Your task to perform on an android device: turn on sleep mode Image 0: 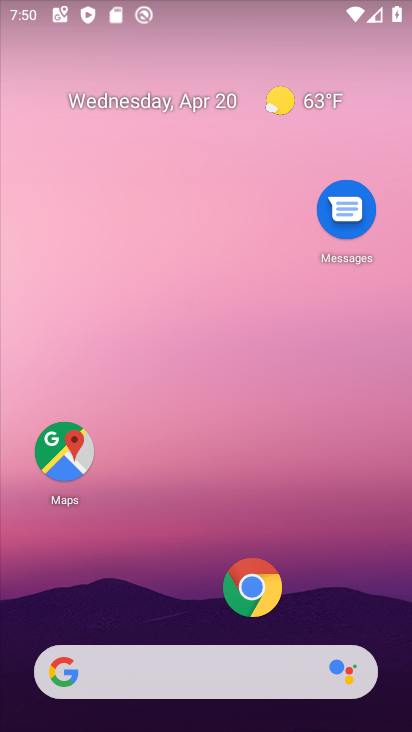
Step 0: press home button
Your task to perform on an android device: turn on sleep mode Image 1: 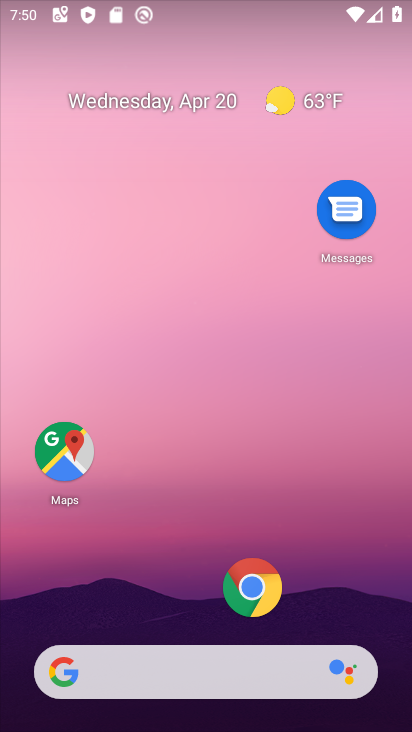
Step 1: drag from (137, 636) to (290, 70)
Your task to perform on an android device: turn on sleep mode Image 2: 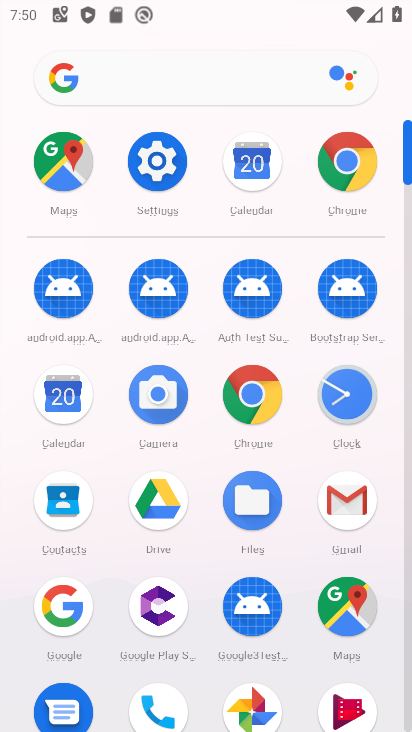
Step 2: click (152, 171)
Your task to perform on an android device: turn on sleep mode Image 3: 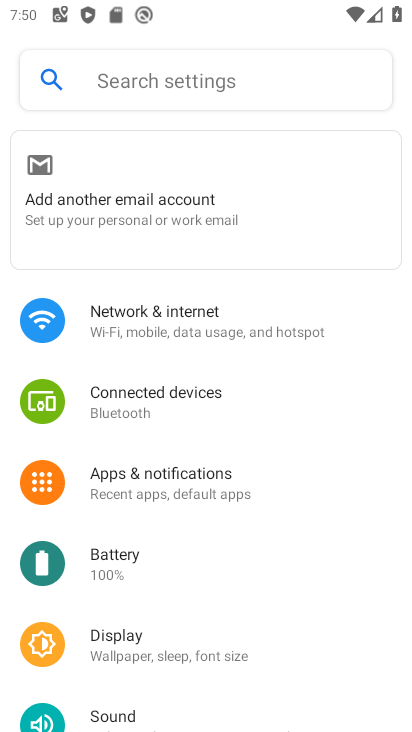
Step 3: drag from (216, 581) to (374, 158)
Your task to perform on an android device: turn on sleep mode Image 4: 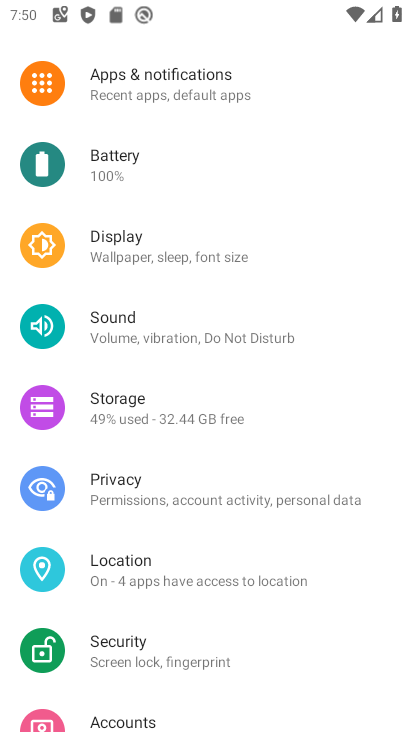
Step 4: click (120, 249)
Your task to perform on an android device: turn on sleep mode Image 5: 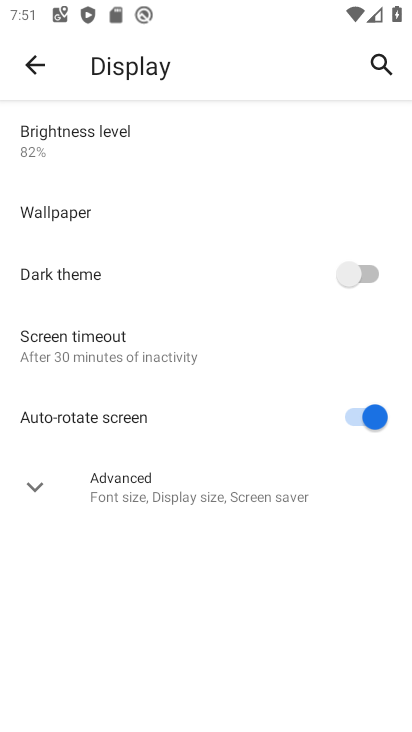
Step 5: task complete